Your task to perform on an android device: Open Google Chrome and click the shortcut for Amazon.com Image 0: 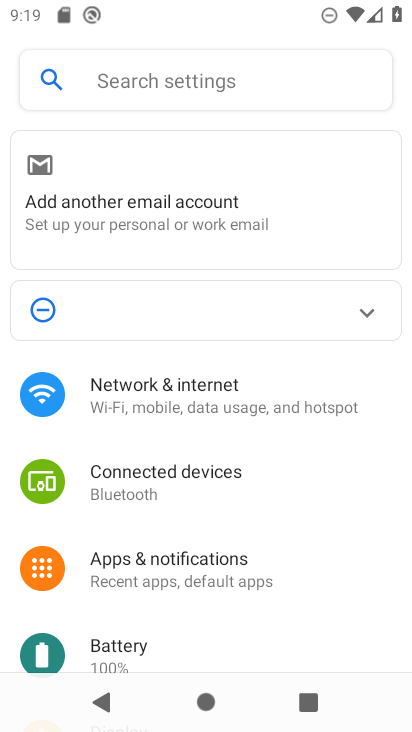
Step 0: press home button
Your task to perform on an android device: Open Google Chrome and click the shortcut for Amazon.com Image 1: 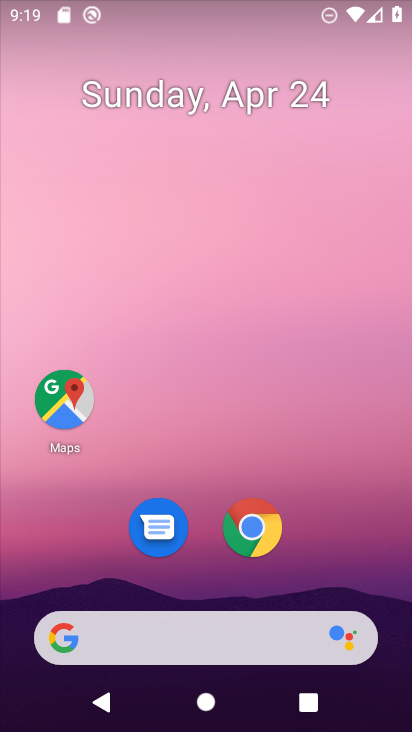
Step 1: drag from (389, 601) to (330, 66)
Your task to perform on an android device: Open Google Chrome and click the shortcut for Amazon.com Image 2: 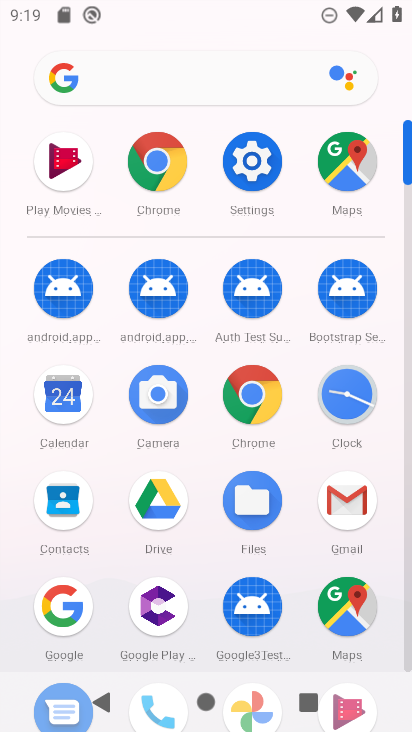
Step 2: click (234, 412)
Your task to perform on an android device: Open Google Chrome and click the shortcut for Amazon.com Image 3: 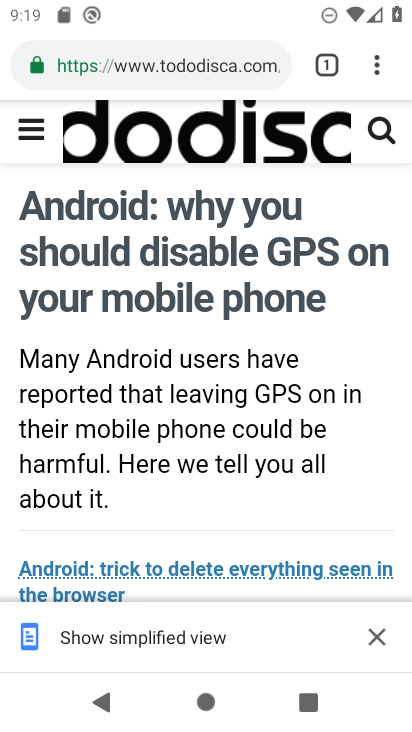
Step 3: press back button
Your task to perform on an android device: Open Google Chrome and click the shortcut for Amazon.com Image 4: 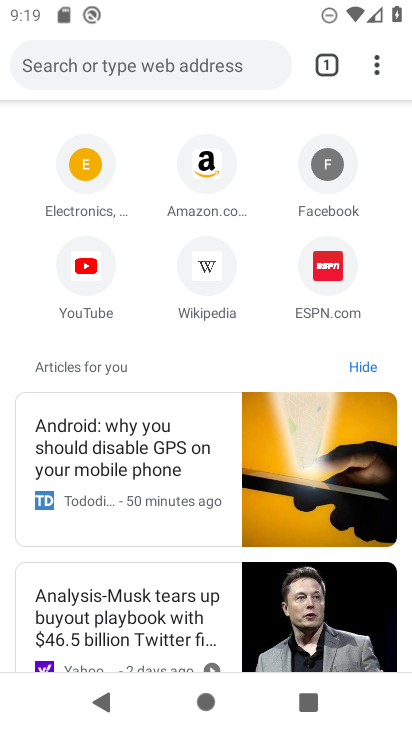
Step 4: click (219, 163)
Your task to perform on an android device: Open Google Chrome and click the shortcut for Amazon.com Image 5: 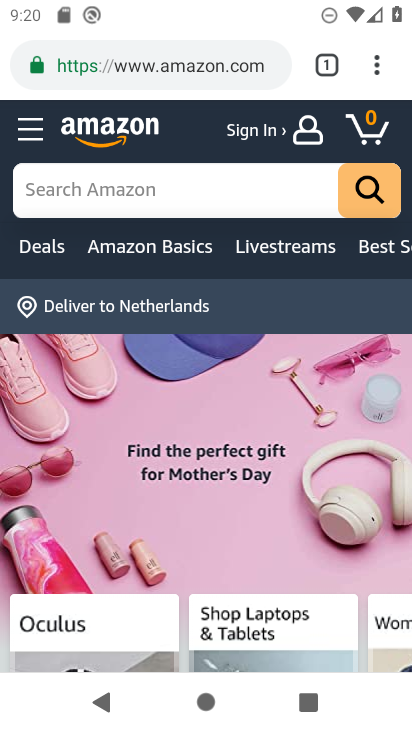
Step 5: task complete